Your task to perform on an android device: Go to eBay Image 0: 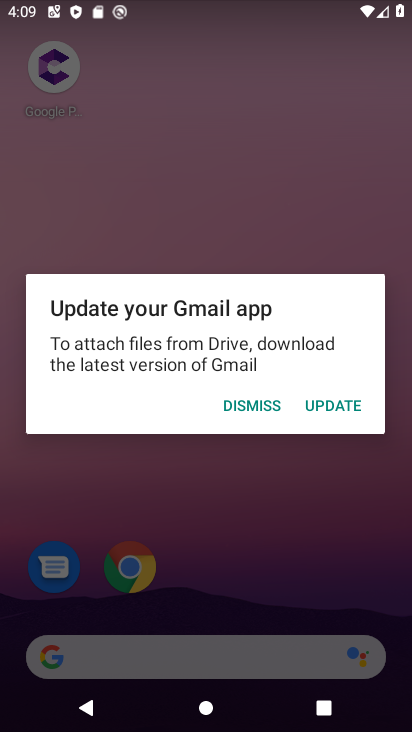
Step 0: click (271, 398)
Your task to perform on an android device: Go to eBay Image 1: 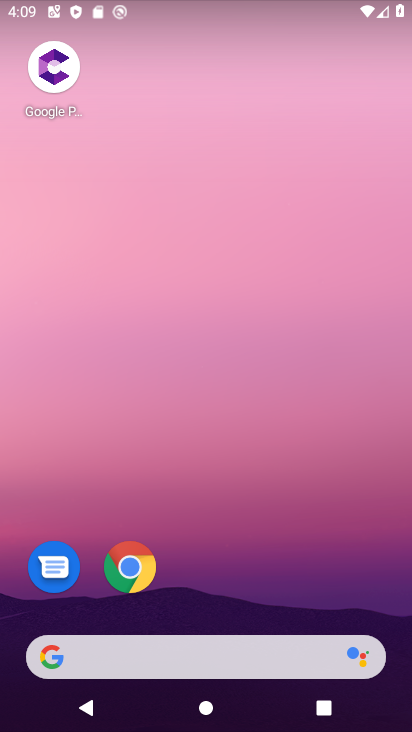
Step 1: drag from (240, 520) to (193, 212)
Your task to perform on an android device: Go to eBay Image 2: 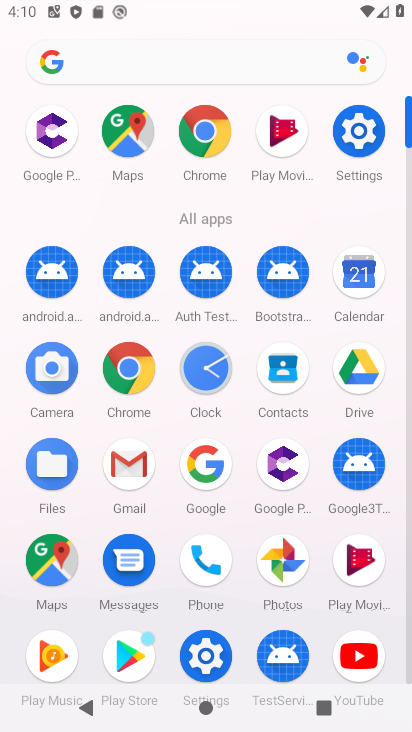
Step 2: click (197, 128)
Your task to perform on an android device: Go to eBay Image 3: 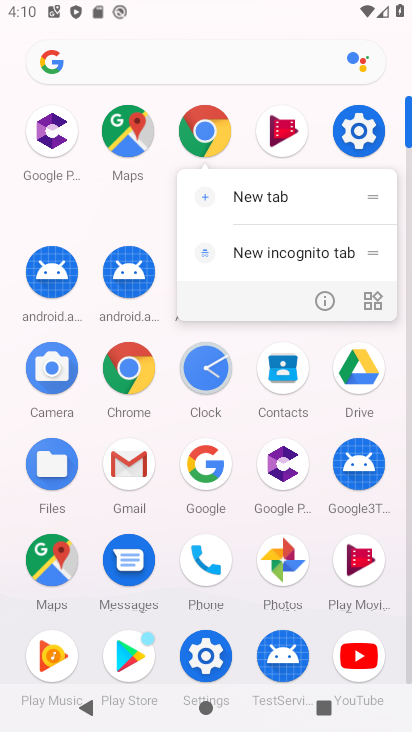
Step 3: click (199, 125)
Your task to perform on an android device: Go to eBay Image 4: 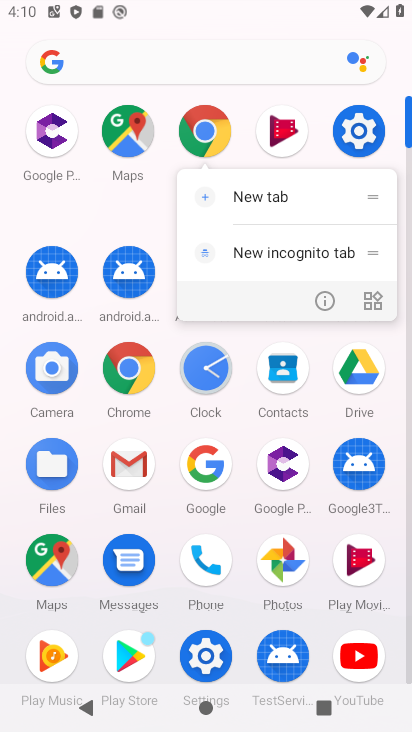
Step 4: click (247, 194)
Your task to perform on an android device: Go to eBay Image 5: 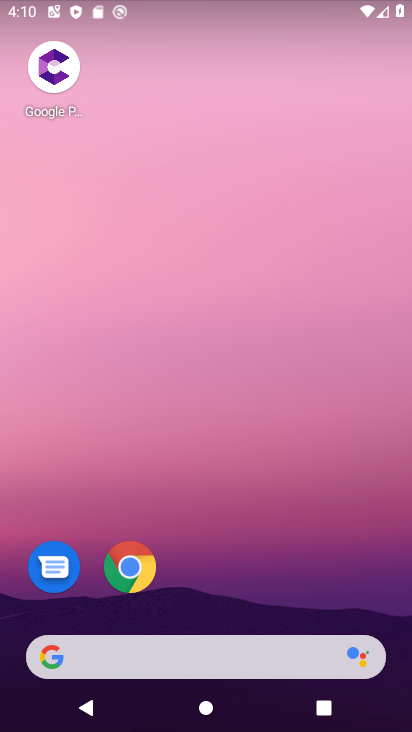
Step 5: click (147, 172)
Your task to perform on an android device: Go to eBay Image 6: 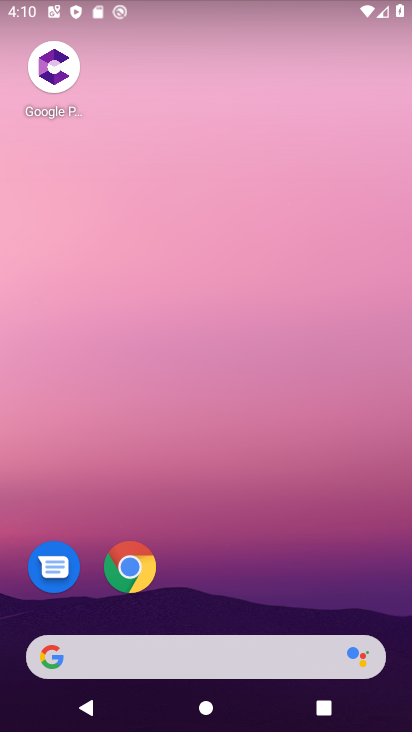
Step 6: drag from (267, 569) to (206, 114)
Your task to perform on an android device: Go to eBay Image 7: 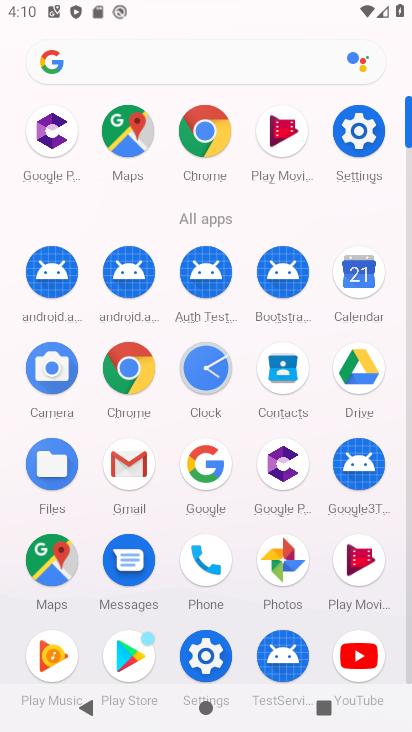
Step 7: click (223, 123)
Your task to perform on an android device: Go to eBay Image 8: 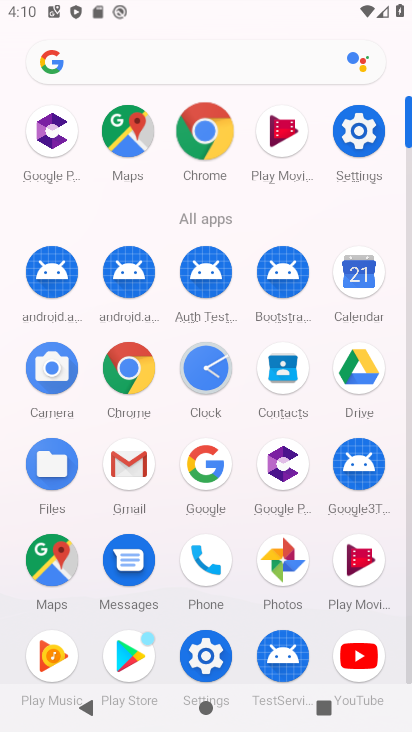
Step 8: click (202, 132)
Your task to perform on an android device: Go to eBay Image 9: 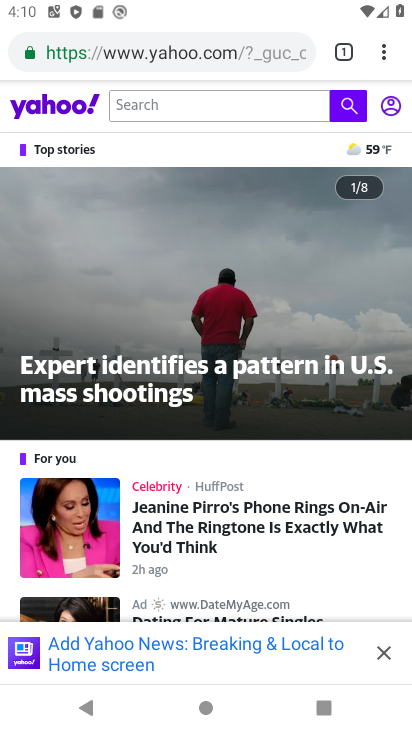
Step 9: drag from (379, 41) to (197, 607)
Your task to perform on an android device: Go to eBay Image 10: 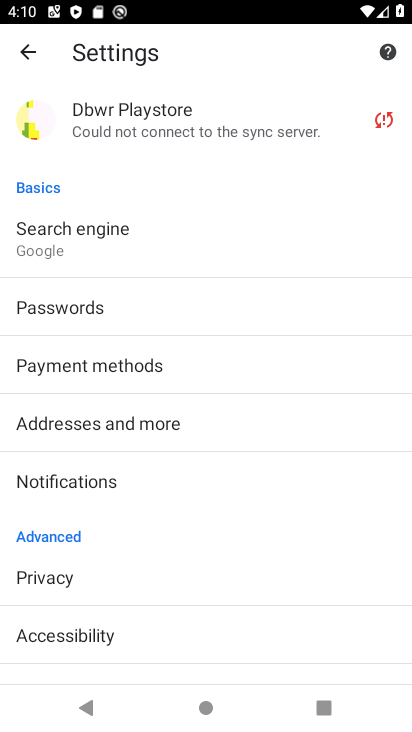
Step 10: click (24, 53)
Your task to perform on an android device: Go to eBay Image 11: 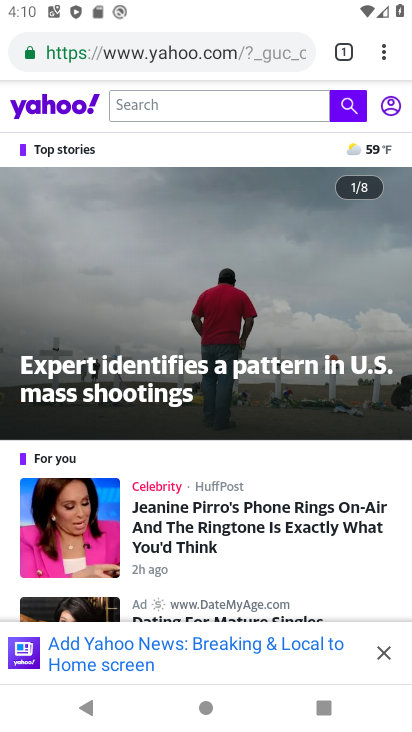
Step 11: click (382, 52)
Your task to perform on an android device: Go to eBay Image 12: 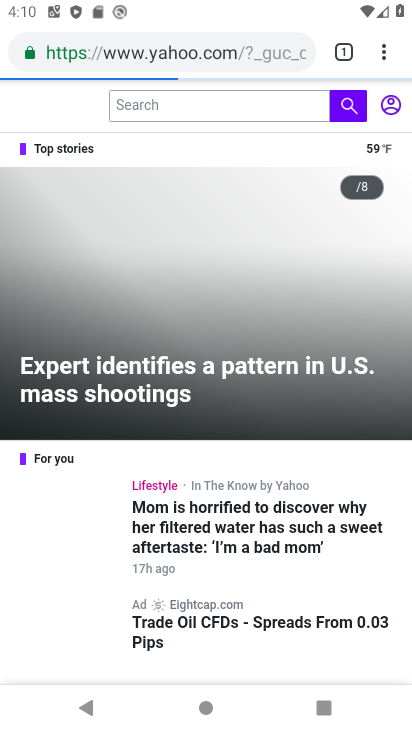
Step 12: click (189, 102)
Your task to perform on an android device: Go to eBay Image 13: 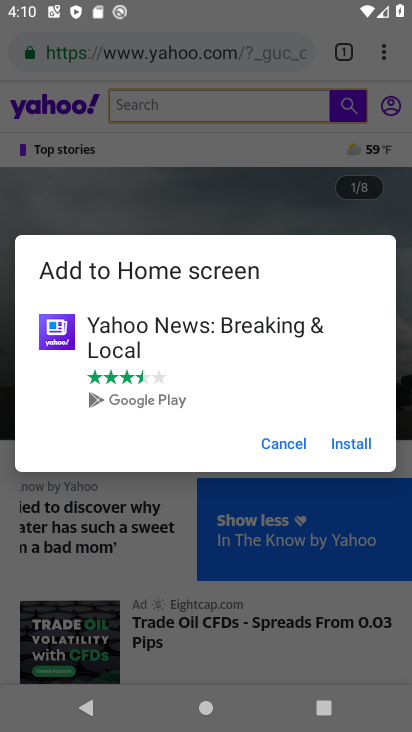
Step 13: drag from (387, 51) to (319, 443)
Your task to perform on an android device: Go to eBay Image 14: 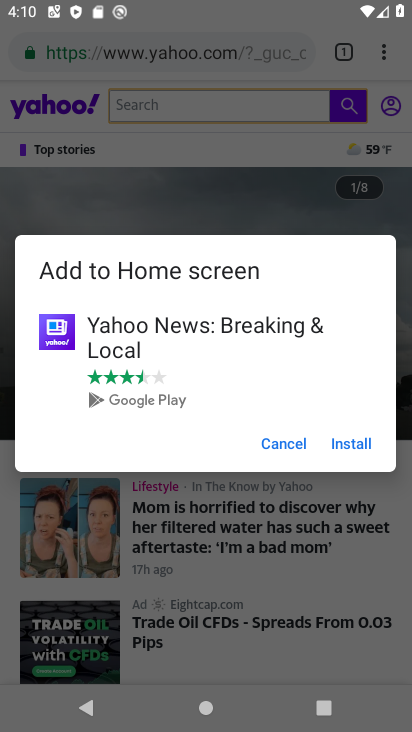
Step 14: click (278, 433)
Your task to perform on an android device: Go to eBay Image 15: 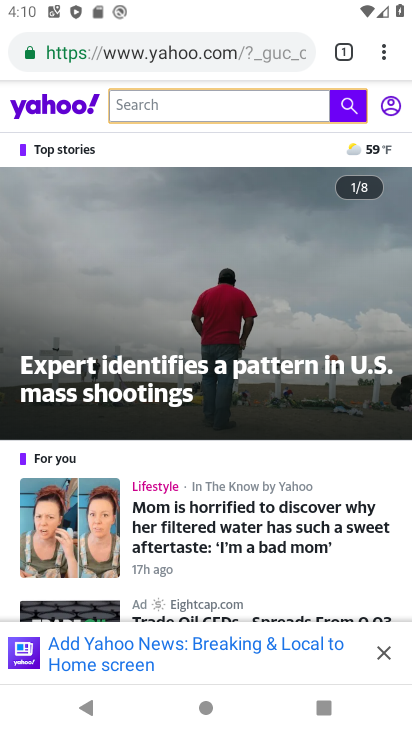
Step 15: drag from (379, 53) to (209, 123)
Your task to perform on an android device: Go to eBay Image 16: 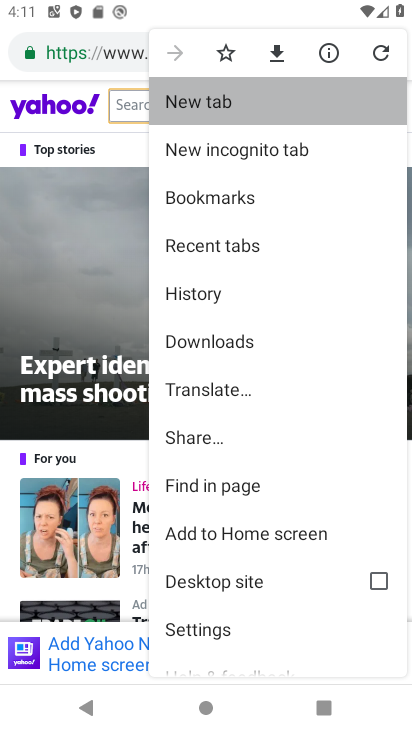
Step 16: click (210, 114)
Your task to perform on an android device: Go to eBay Image 17: 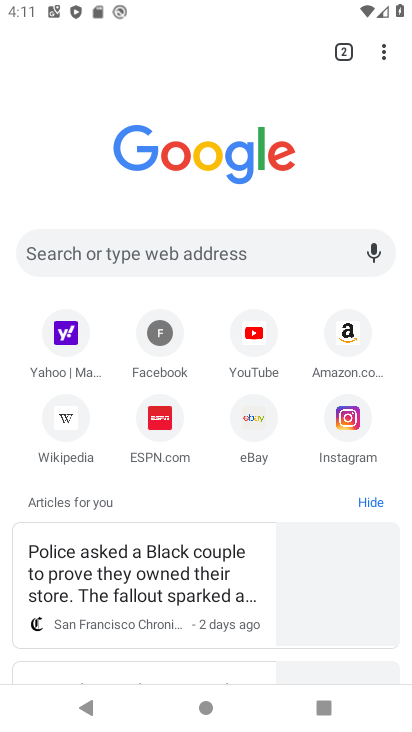
Step 17: click (212, 111)
Your task to perform on an android device: Go to eBay Image 18: 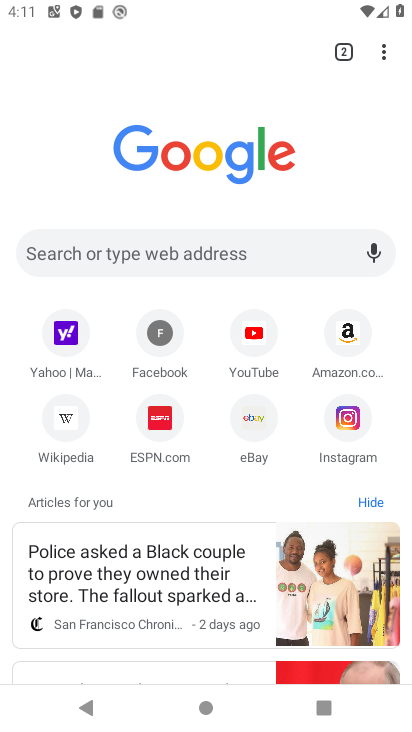
Step 18: click (254, 411)
Your task to perform on an android device: Go to eBay Image 19: 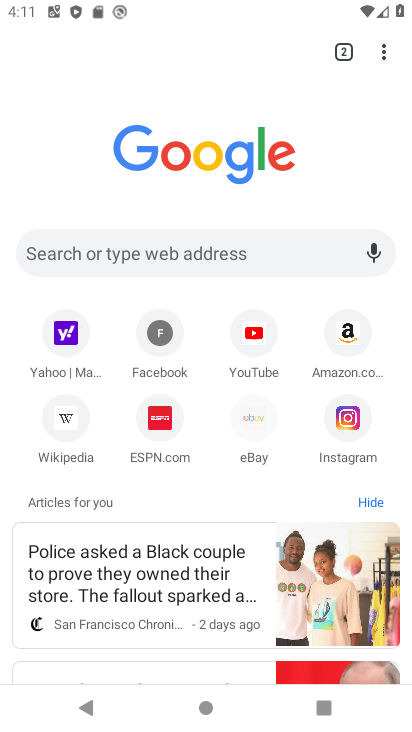
Step 19: click (254, 412)
Your task to perform on an android device: Go to eBay Image 20: 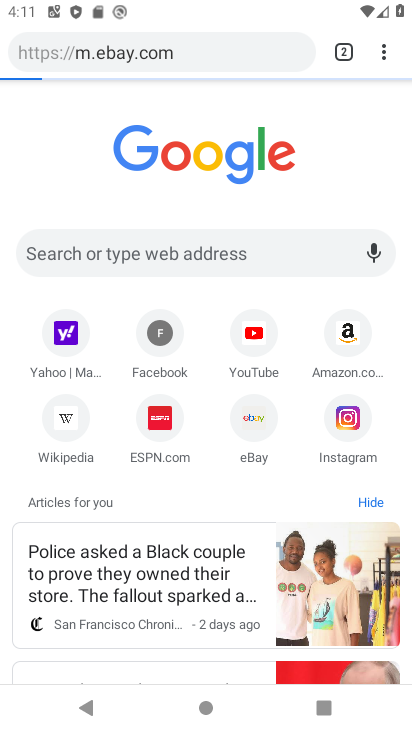
Step 20: click (254, 412)
Your task to perform on an android device: Go to eBay Image 21: 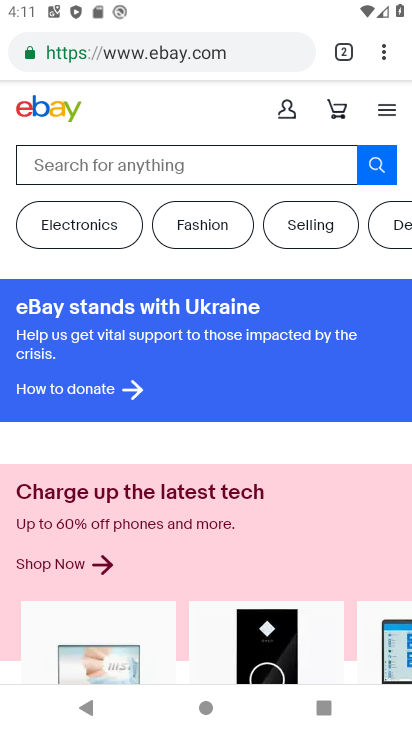
Step 21: task complete